Your task to perform on an android device: Search for pizza restaurants on Maps Image 0: 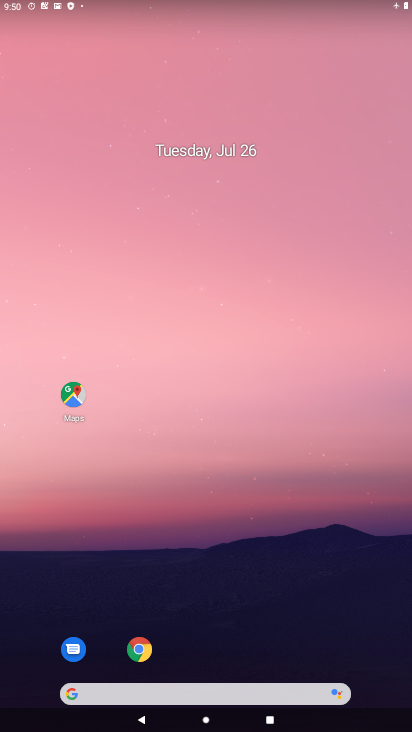
Step 0: drag from (181, 606) to (193, 109)
Your task to perform on an android device: Search for pizza restaurants on Maps Image 1: 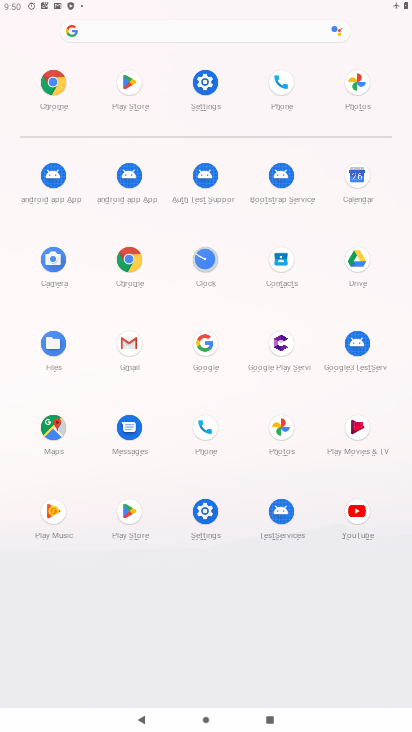
Step 1: click (62, 426)
Your task to perform on an android device: Search for pizza restaurants on Maps Image 2: 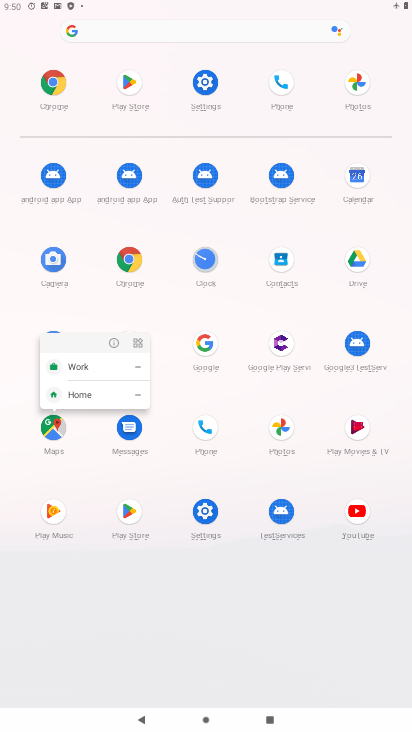
Step 2: click (113, 339)
Your task to perform on an android device: Search for pizza restaurants on Maps Image 3: 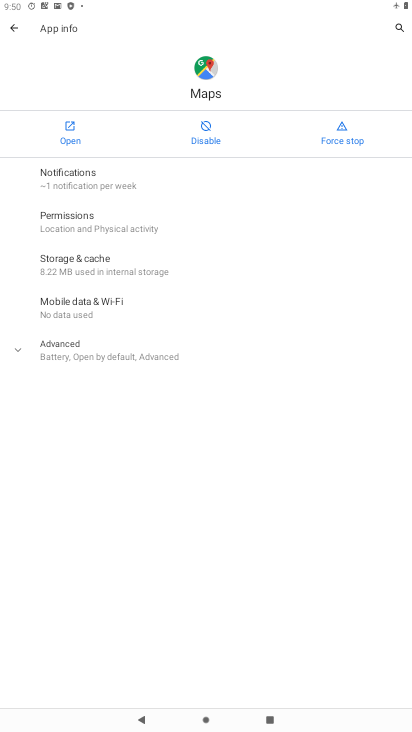
Step 3: click (68, 118)
Your task to perform on an android device: Search for pizza restaurants on Maps Image 4: 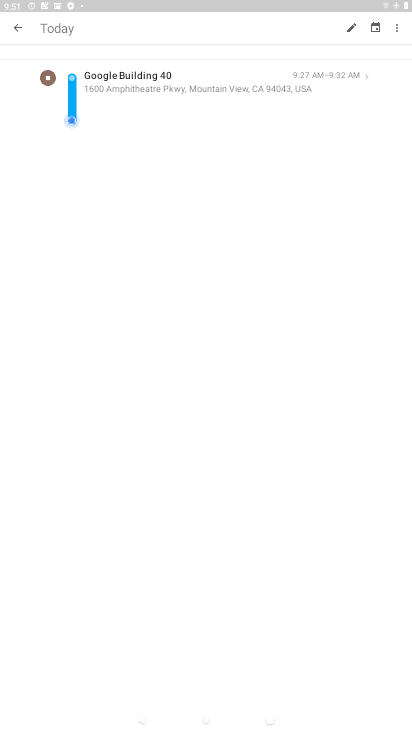
Step 4: drag from (195, 486) to (229, 244)
Your task to perform on an android device: Search for pizza restaurants on Maps Image 5: 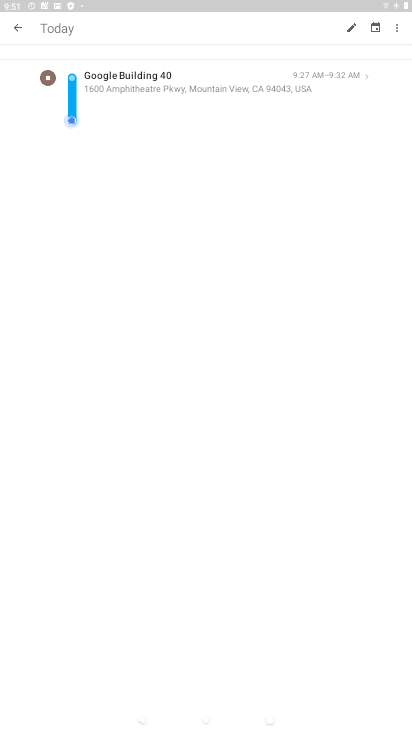
Step 5: click (17, 27)
Your task to perform on an android device: Search for pizza restaurants on Maps Image 6: 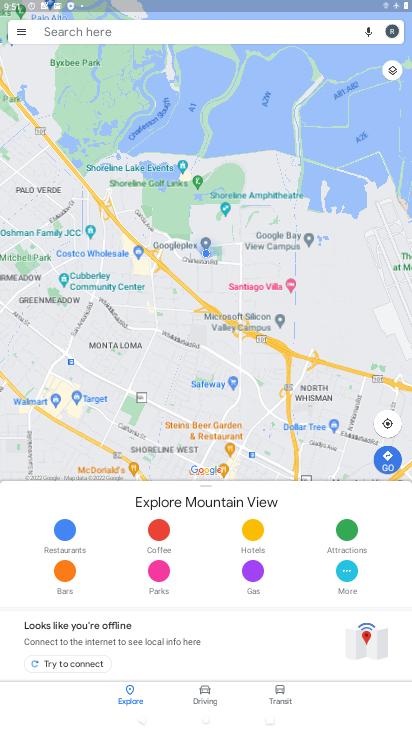
Step 6: click (130, 28)
Your task to perform on an android device: Search for pizza restaurants on Maps Image 7: 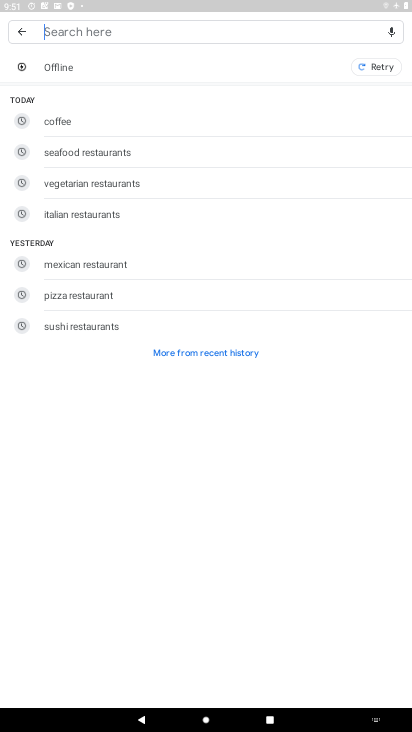
Step 7: type "pissa"
Your task to perform on an android device: Search for pizza restaurants on Maps Image 8: 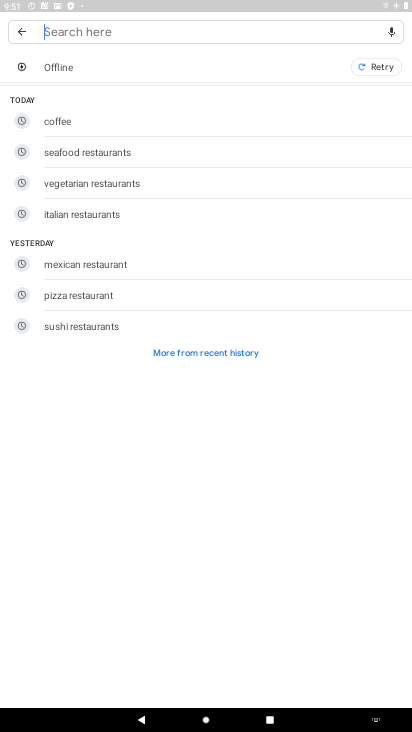
Step 8: click (77, 300)
Your task to perform on an android device: Search for pizza restaurants on Maps Image 9: 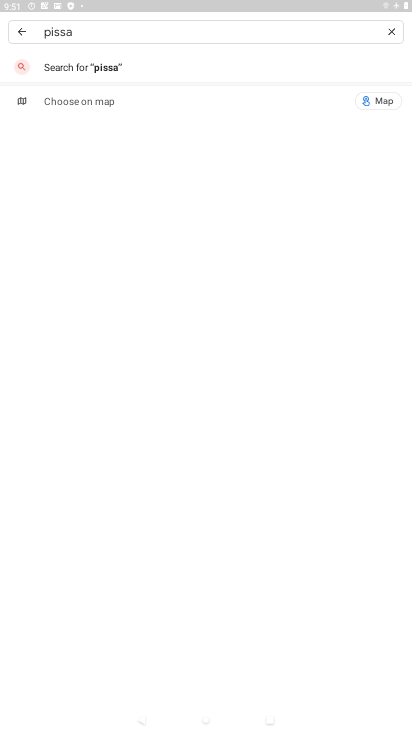
Step 9: drag from (189, 555) to (255, 288)
Your task to perform on an android device: Search for pizza restaurants on Maps Image 10: 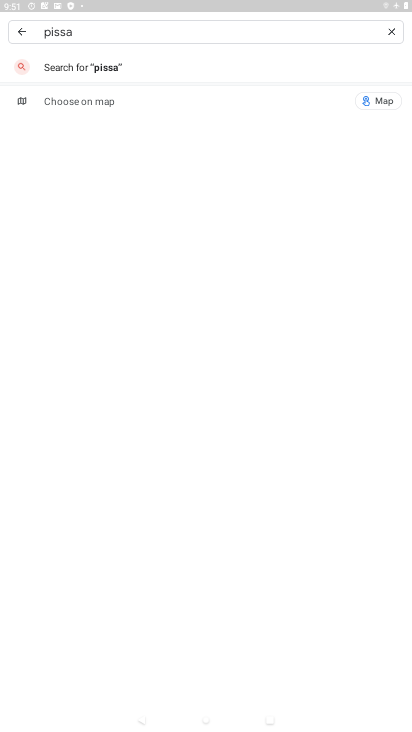
Step 10: drag from (223, 174) to (267, 538)
Your task to perform on an android device: Search for pizza restaurants on Maps Image 11: 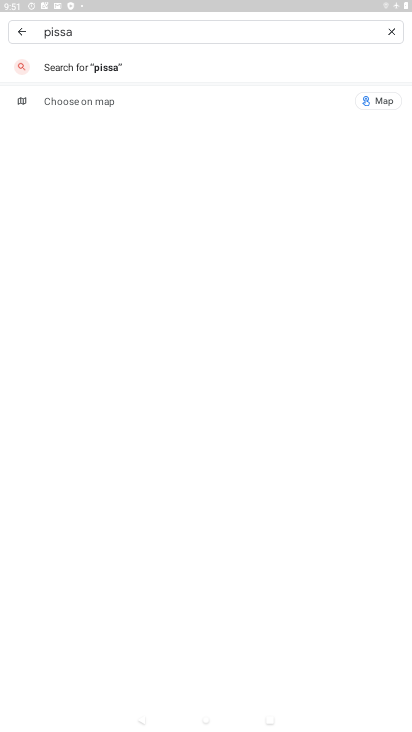
Step 11: click (389, 31)
Your task to perform on an android device: Search for pizza restaurants on Maps Image 12: 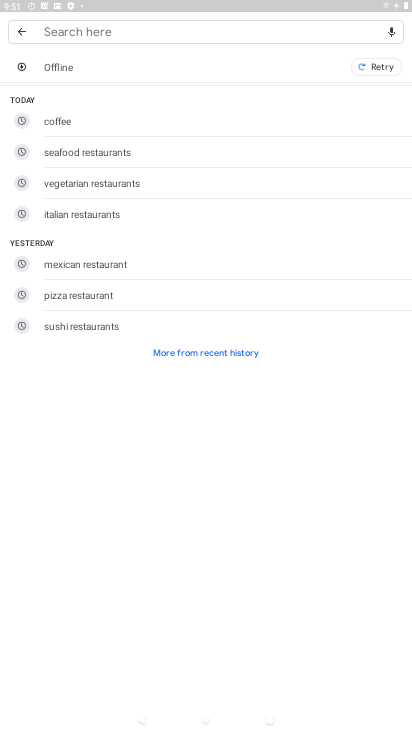
Step 12: click (70, 286)
Your task to perform on an android device: Search for pizza restaurants on Maps Image 13: 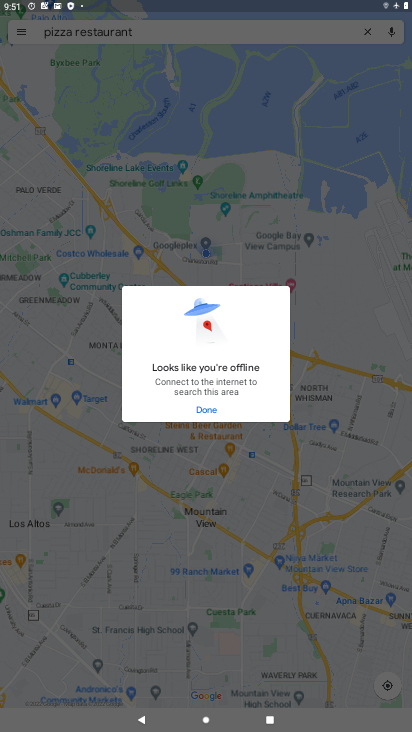
Step 13: task complete